Your task to perform on an android device: find snoozed emails in the gmail app Image 0: 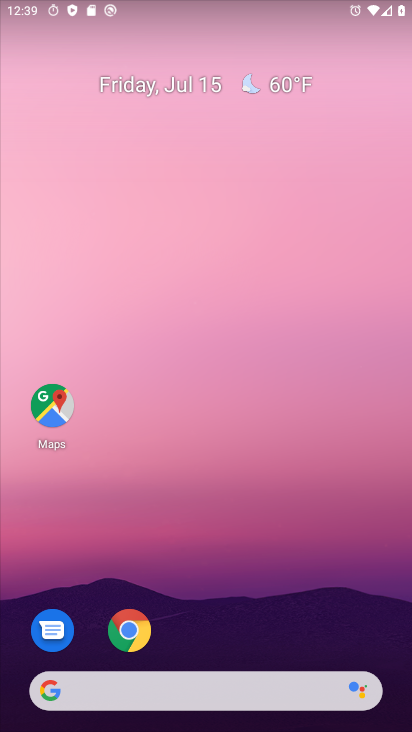
Step 0: drag from (200, 553) to (200, 290)
Your task to perform on an android device: find snoozed emails in the gmail app Image 1: 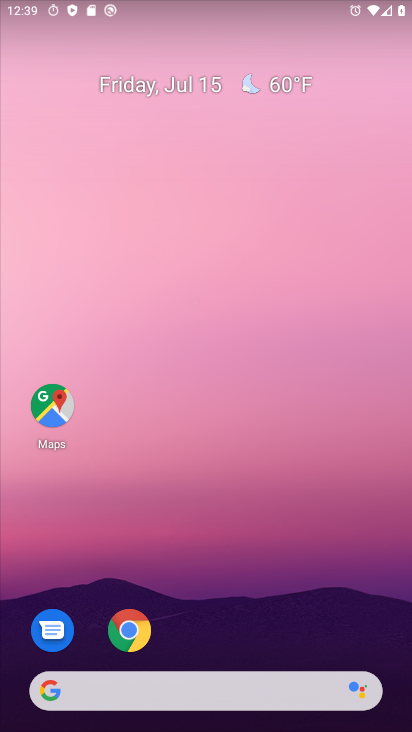
Step 1: drag from (236, 257) to (227, 123)
Your task to perform on an android device: find snoozed emails in the gmail app Image 2: 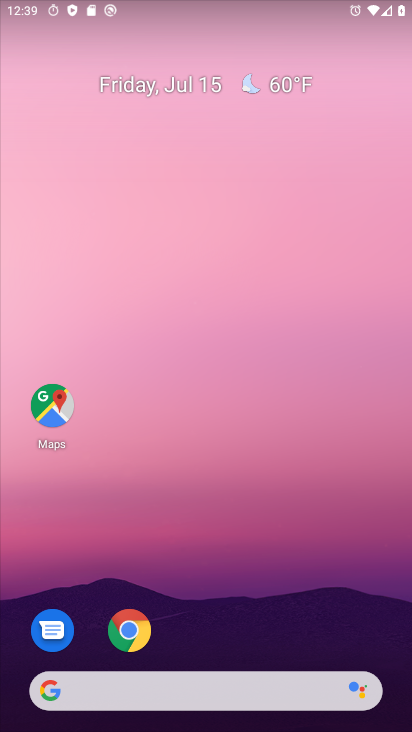
Step 2: drag from (222, 625) to (223, 22)
Your task to perform on an android device: find snoozed emails in the gmail app Image 3: 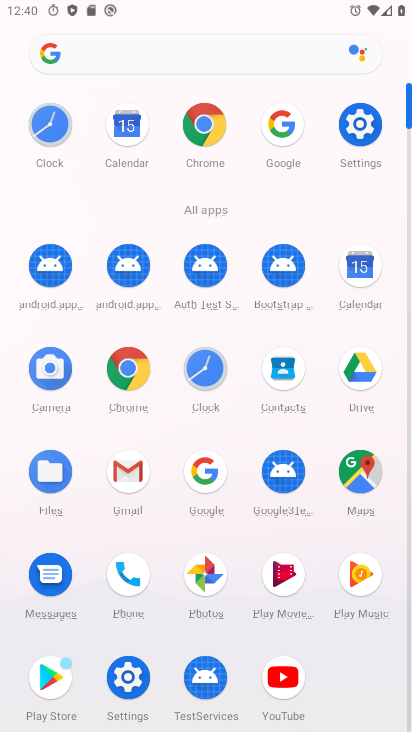
Step 3: click (132, 489)
Your task to perform on an android device: find snoozed emails in the gmail app Image 4: 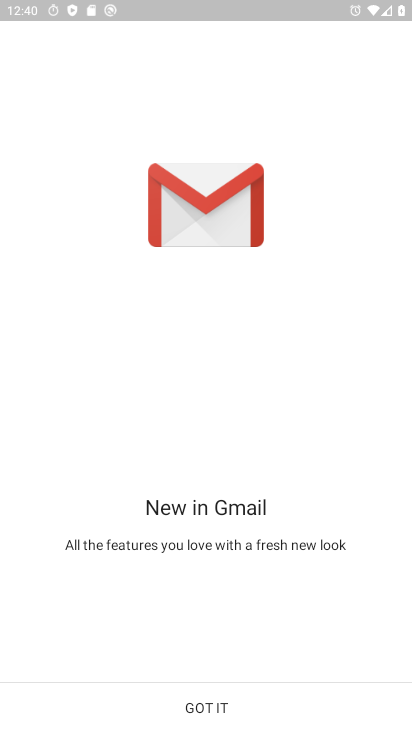
Step 4: click (227, 692)
Your task to perform on an android device: find snoozed emails in the gmail app Image 5: 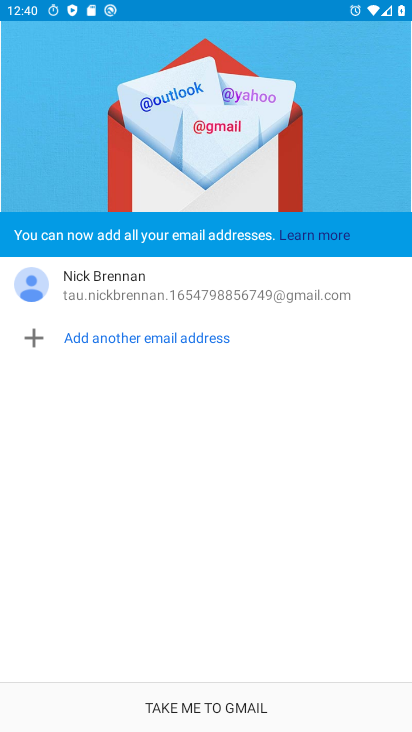
Step 5: click (209, 704)
Your task to perform on an android device: find snoozed emails in the gmail app Image 6: 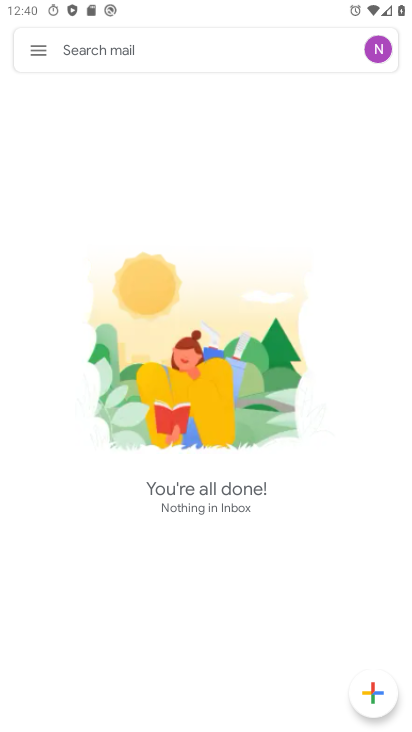
Step 6: click (33, 48)
Your task to perform on an android device: find snoozed emails in the gmail app Image 7: 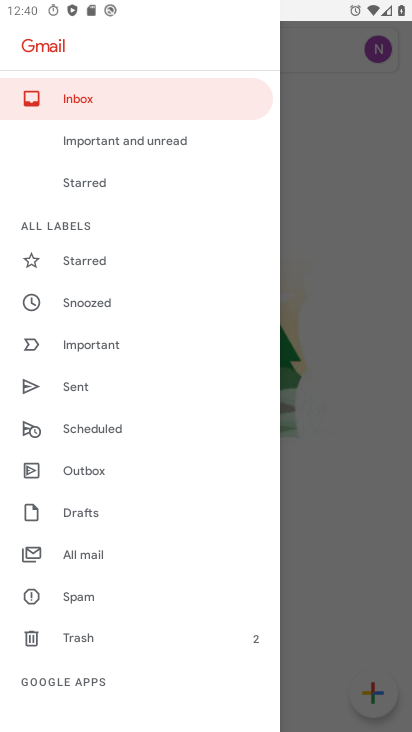
Step 7: click (86, 297)
Your task to perform on an android device: find snoozed emails in the gmail app Image 8: 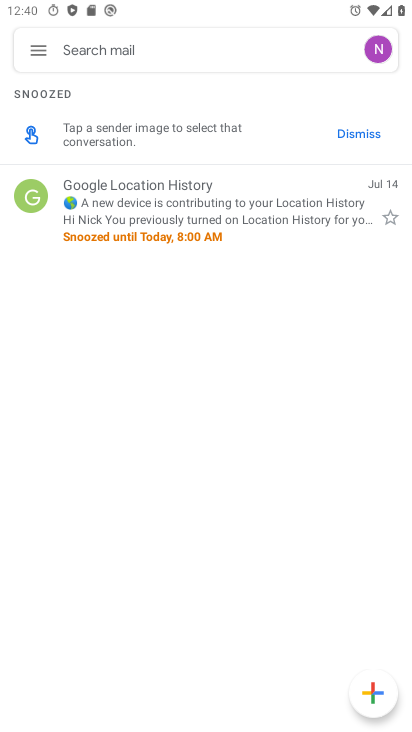
Step 8: task complete